Your task to perform on an android device: Show me productivity apps on the Play Store Image 0: 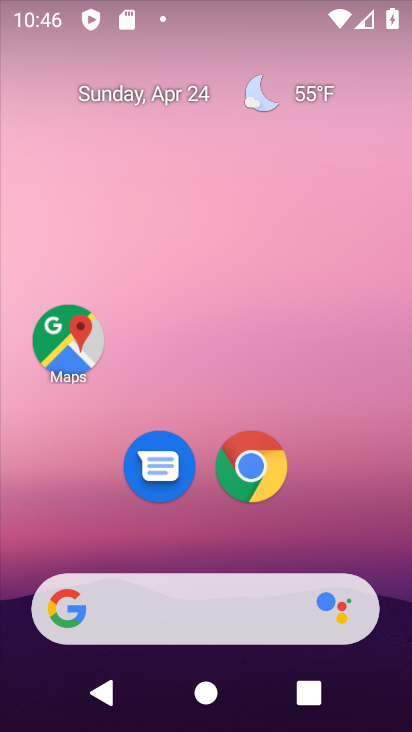
Step 0: drag from (369, 520) to (339, 36)
Your task to perform on an android device: Show me productivity apps on the Play Store Image 1: 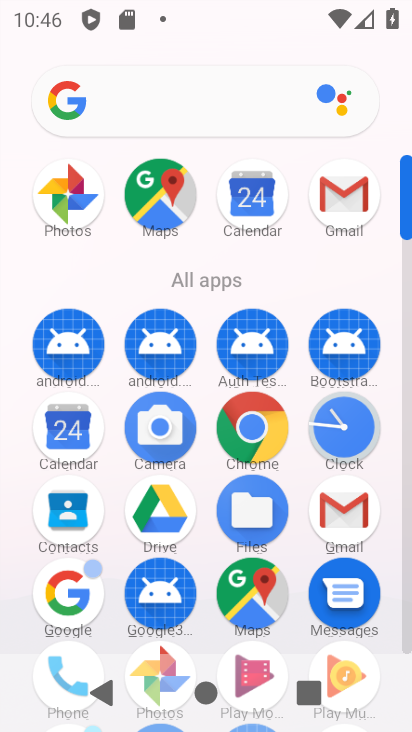
Step 1: drag from (408, 576) to (408, 541)
Your task to perform on an android device: Show me productivity apps on the Play Store Image 2: 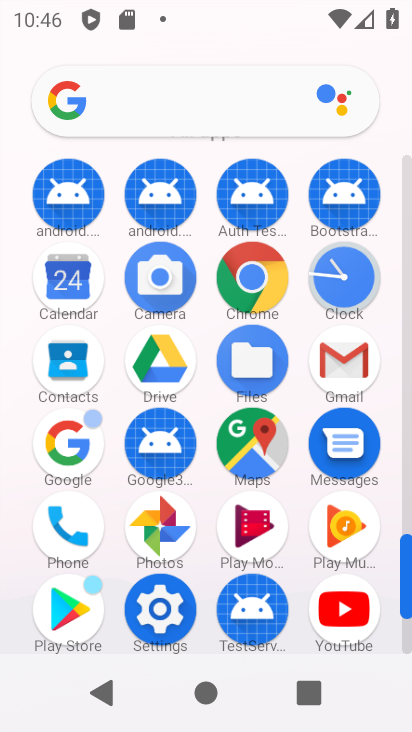
Step 2: click (59, 614)
Your task to perform on an android device: Show me productivity apps on the Play Store Image 3: 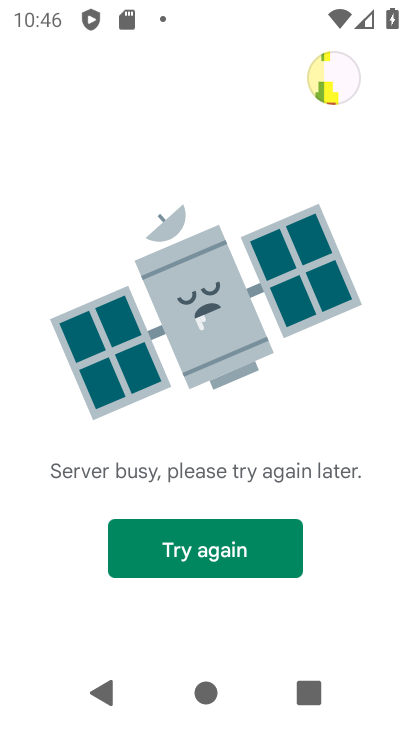
Step 3: task complete